Your task to perform on an android device: Open Chrome and go to the settings page Image 0: 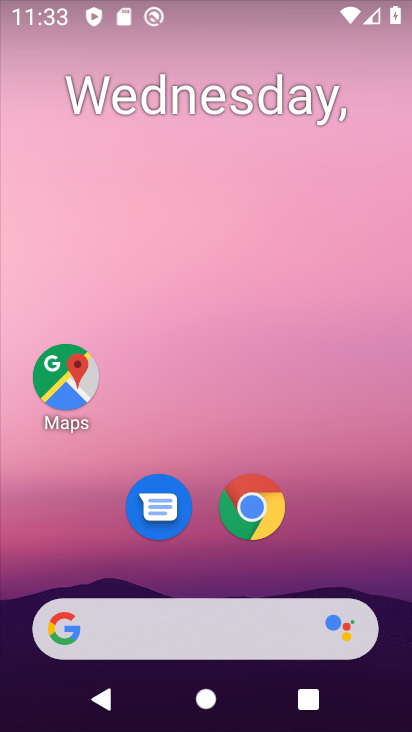
Step 0: click (267, 525)
Your task to perform on an android device: Open Chrome and go to the settings page Image 1: 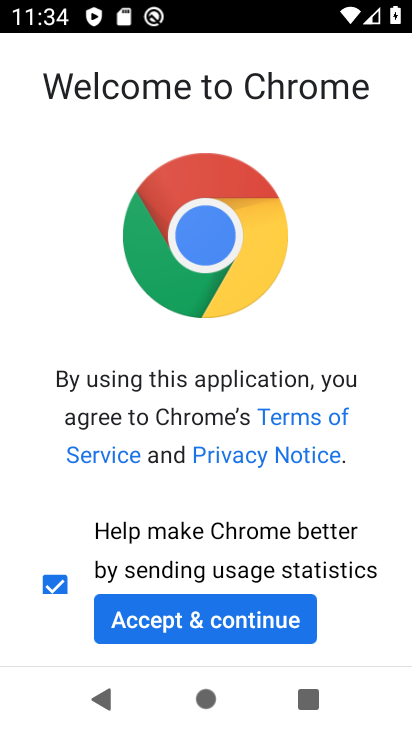
Step 1: click (227, 646)
Your task to perform on an android device: Open Chrome and go to the settings page Image 2: 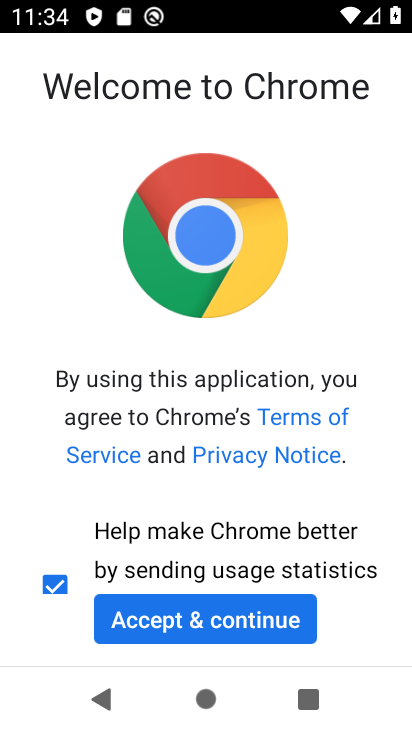
Step 2: click (238, 638)
Your task to perform on an android device: Open Chrome and go to the settings page Image 3: 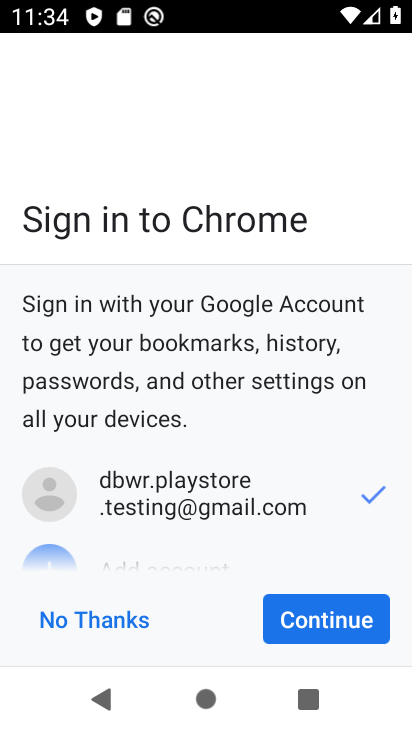
Step 3: click (307, 625)
Your task to perform on an android device: Open Chrome and go to the settings page Image 4: 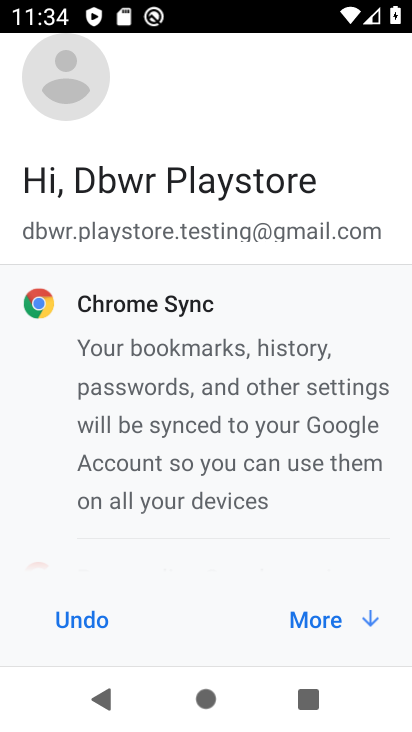
Step 4: click (324, 623)
Your task to perform on an android device: Open Chrome and go to the settings page Image 5: 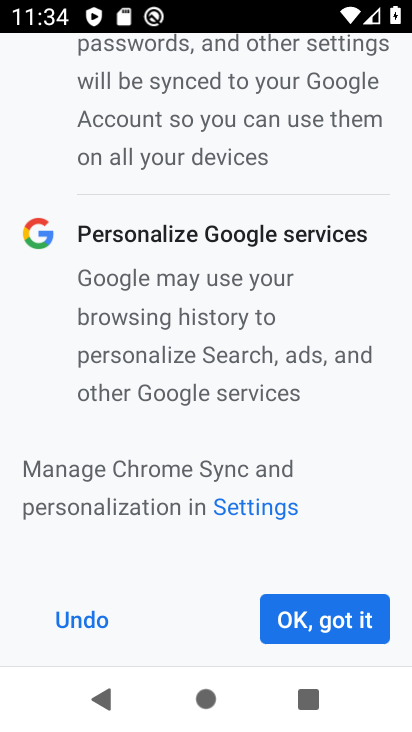
Step 5: click (311, 616)
Your task to perform on an android device: Open Chrome and go to the settings page Image 6: 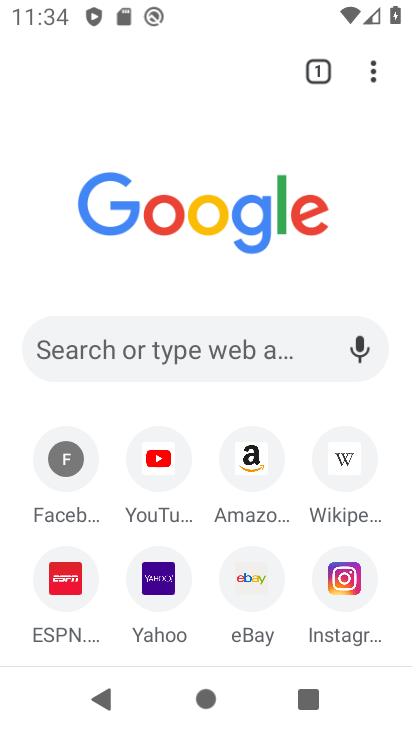
Step 6: click (315, 615)
Your task to perform on an android device: Open Chrome and go to the settings page Image 7: 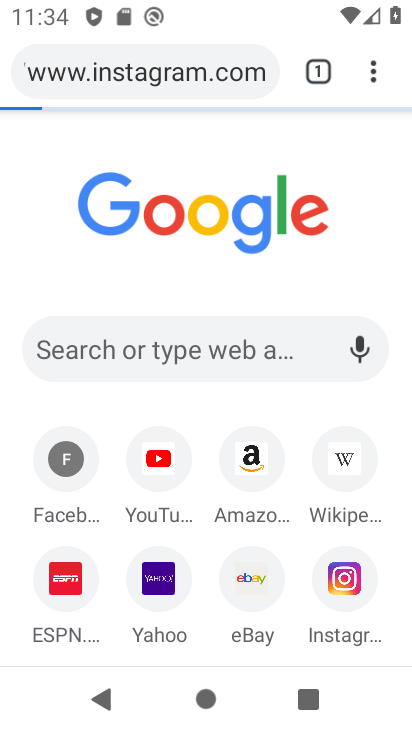
Step 7: click (375, 70)
Your task to perform on an android device: Open Chrome and go to the settings page Image 8: 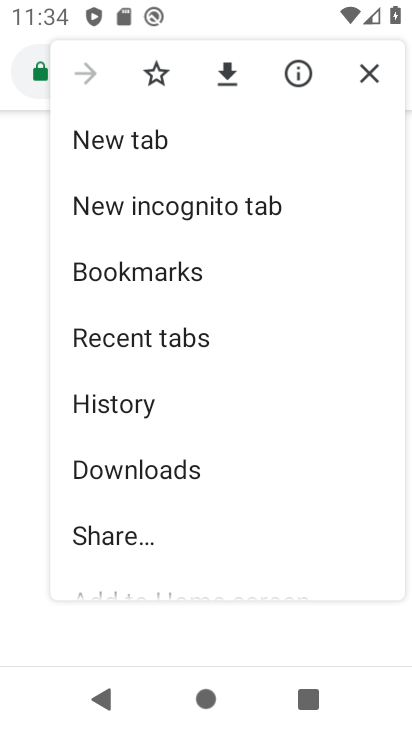
Step 8: drag from (204, 496) to (175, 258)
Your task to perform on an android device: Open Chrome and go to the settings page Image 9: 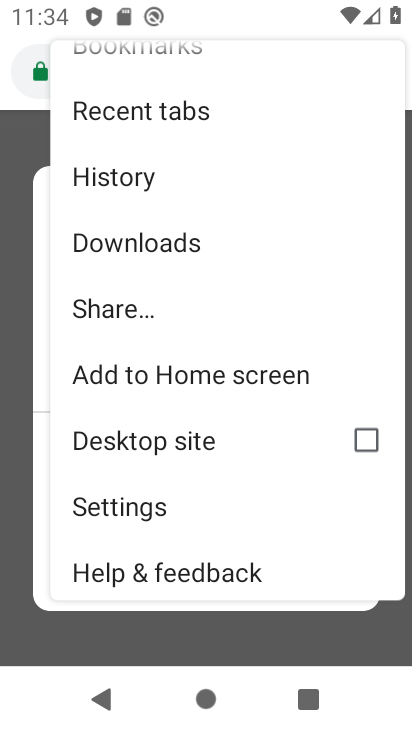
Step 9: click (167, 508)
Your task to perform on an android device: Open Chrome and go to the settings page Image 10: 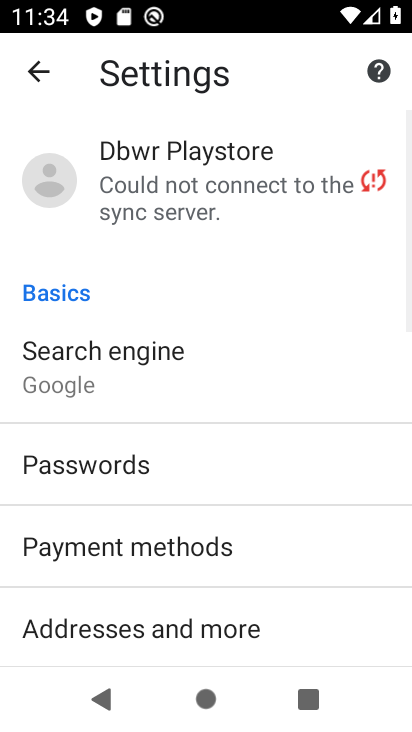
Step 10: task complete